Your task to perform on an android device: turn on improve location accuracy Image 0: 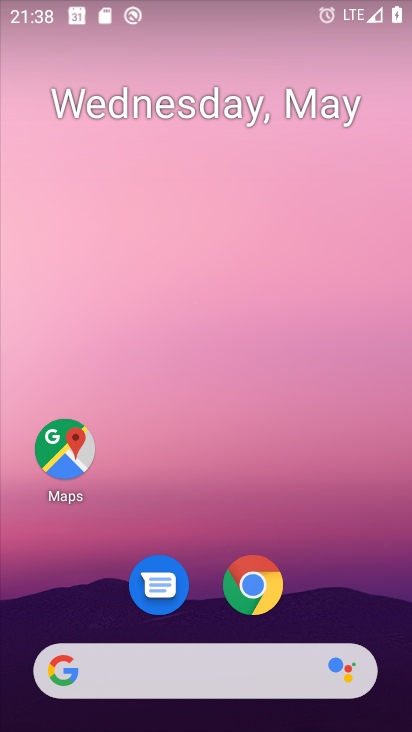
Step 0: drag from (292, 522) to (264, 16)
Your task to perform on an android device: turn on improve location accuracy Image 1: 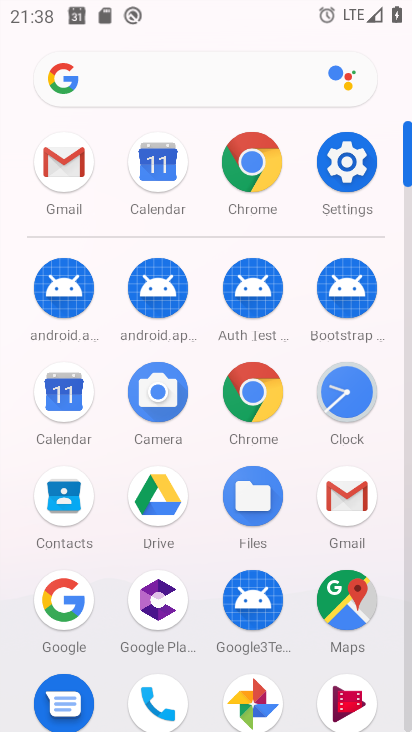
Step 1: click (343, 165)
Your task to perform on an android device: turn on improve location accuracy Image 2: 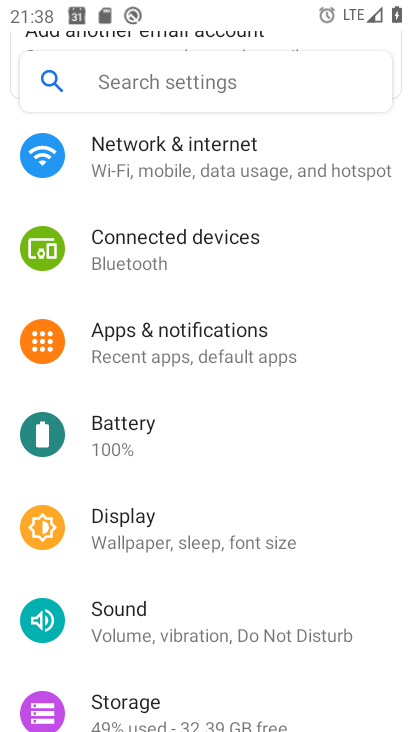
Step 2: drag from (233, 573) to (207, 95)
Your task to perform on an android device: turn on improve location accuracy Image 3: 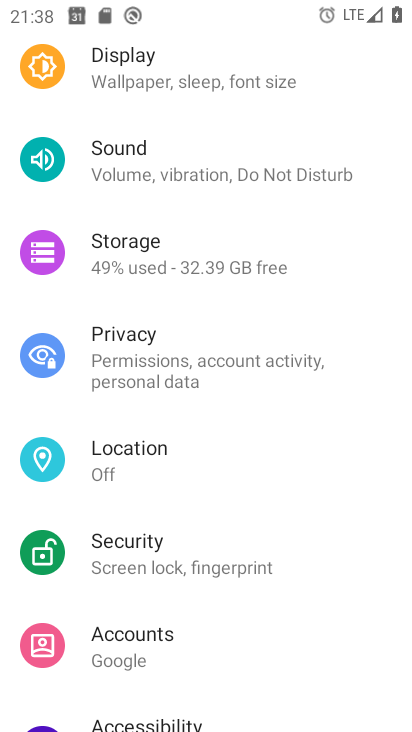
Step 3: click (190, 452)
Your task to perform on an android device: turn on improve location accuracy Image 4: 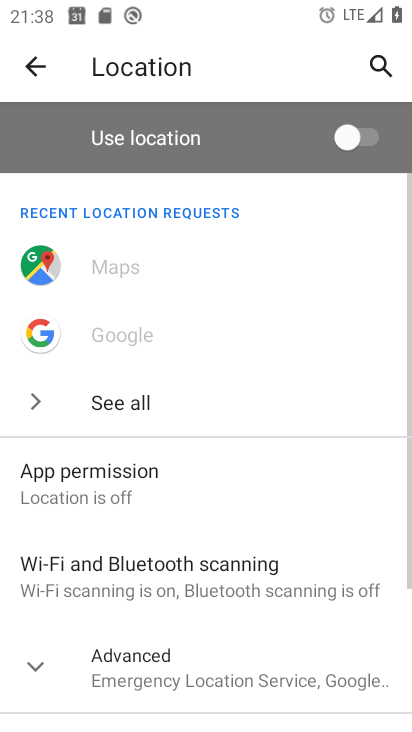
Step 4: drag from (213, 634) to (213, 478)
Your task to perform on an android device: turn on improve location accuracy Image 5: 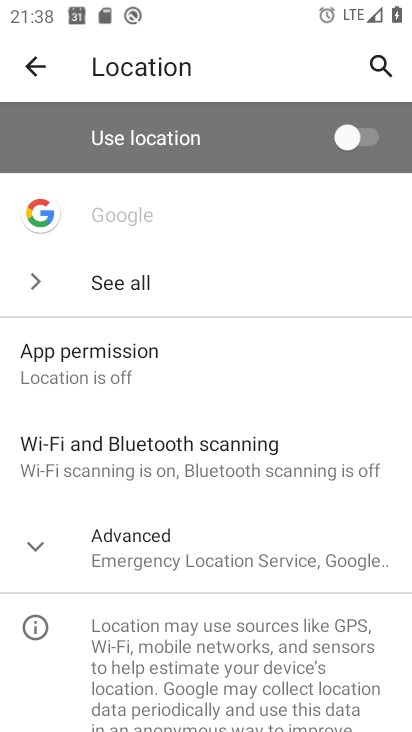
Step 5: click (38, 542)
Your task to perform on an android device: turn on improve location accuracy Image 6: 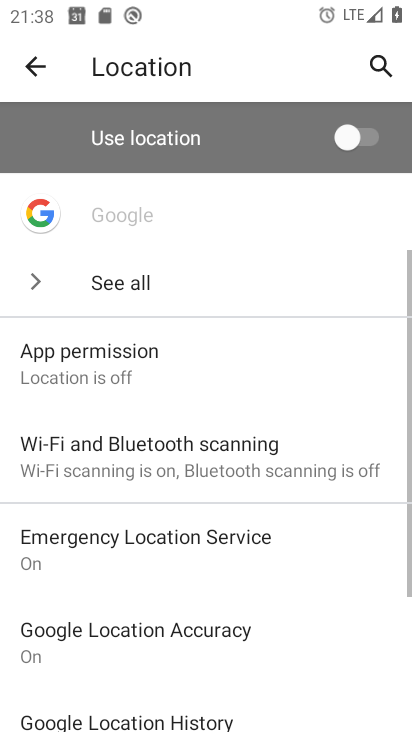
Step 6: drag from (194, 670) to (180, 203)
Your task to perform on an android device: turn on improve location accuracy Image 7: 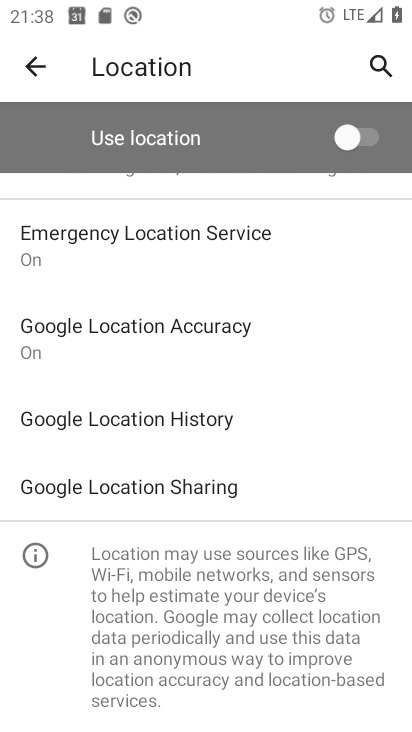
Step 7: click (202, 323)
Your task to perform on an android device: turn on improve location accuracy Image 8: 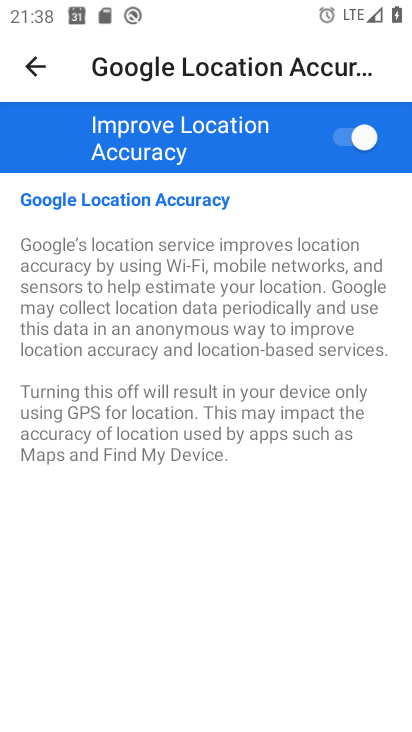
Step 8: task complete